Your task to perform on an android device: turn on the 12-hour format for clock Image 0: 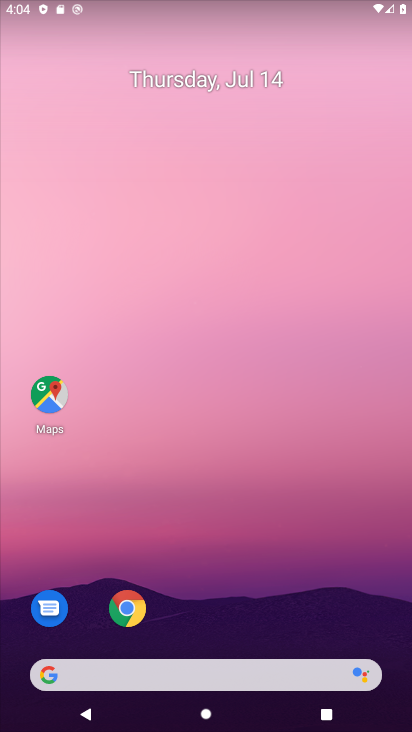
Step 0: drag from (194, 619) to (146, 176)
Your task to perform on an android device: turn on the 12-hour format for clock Image 1: 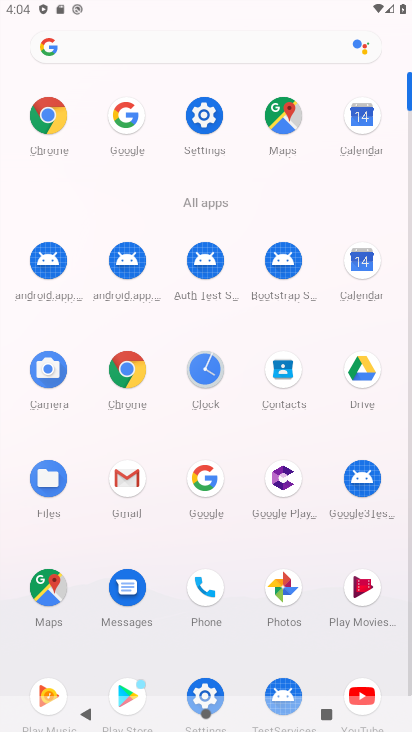
Step 1: click (203, 377)
Your task to perform on an android device: turn on the 12-hour format for clock Image 2: 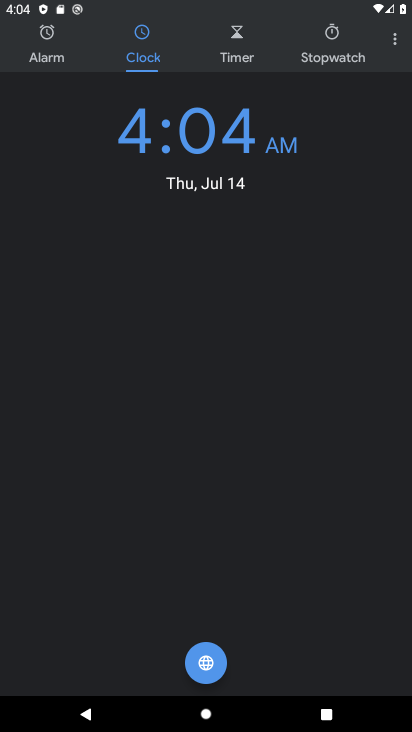
Step 2: click (391, 42)
Your task to perform on an android device: turn on the 12-hour format for clock Image 3: 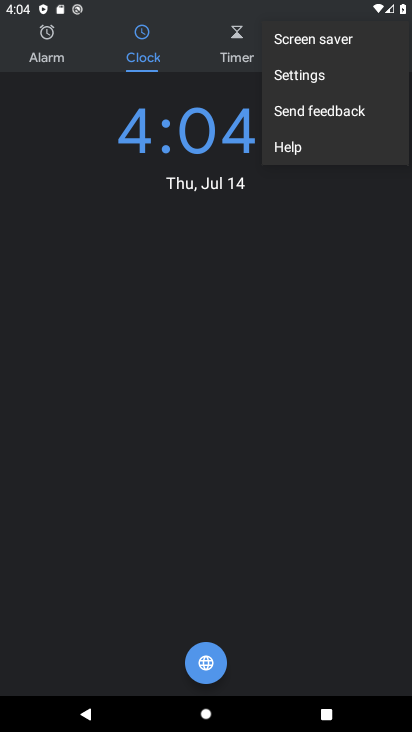
Step 3: click (333, 75)
Your task to perform on an android device: turn on the 12-hour format for clock Image 4: 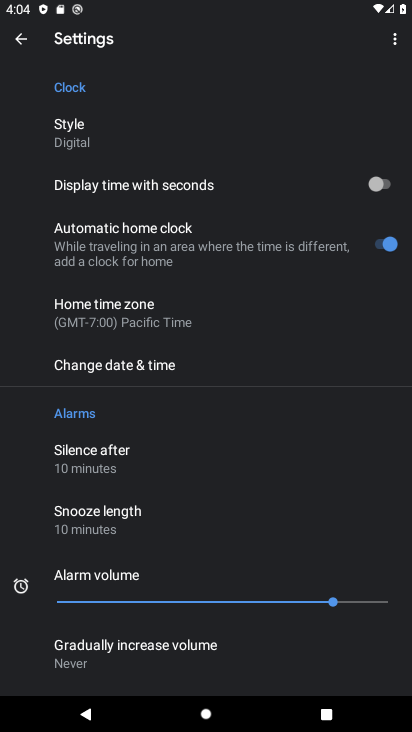
Step 4: click (138, 374)
Your task to perform on an android device: turn on the 12-hour format for clock Image 5: 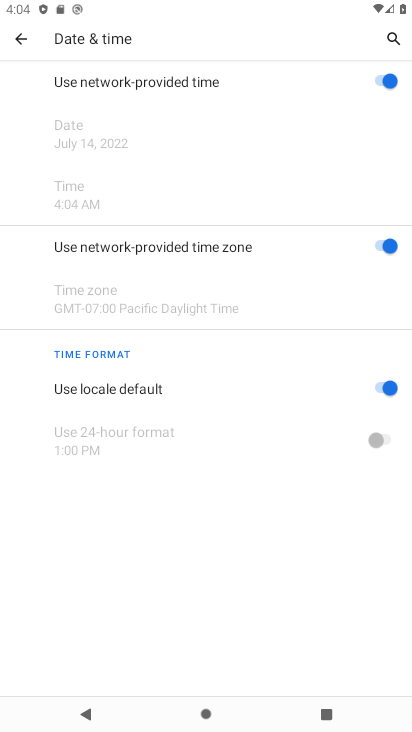
Step 5: task complete